Your task to perform on an android device: Open Chrome and go to the settings page Image 0: 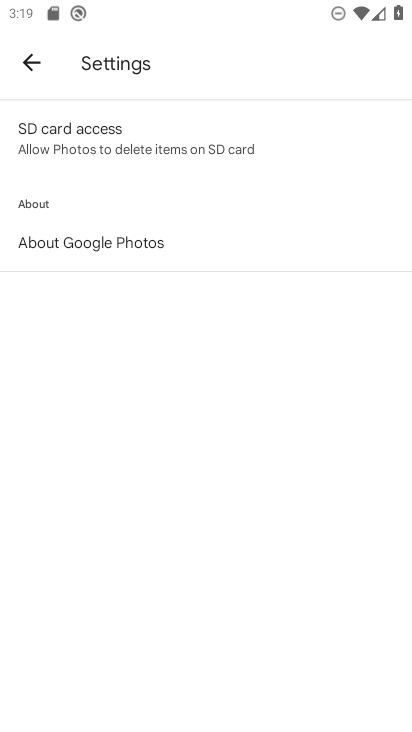
Step 0: click (303, 424)
Your task to perform on an android device: Open Chrome and go to the settings page Image 1: 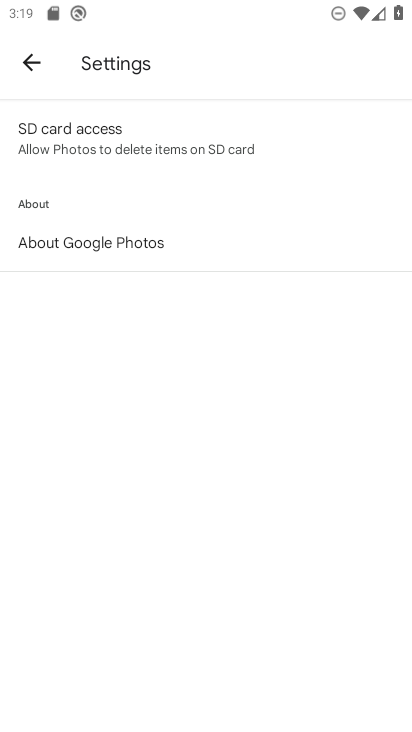
Step 1: click (224, 511)
Your task to perform on an android device: Open Chrome and go to the settings page Image 2: 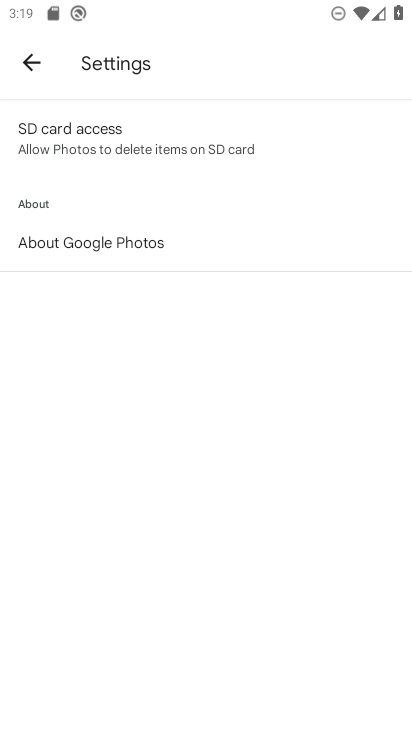
Step 2: click (228, 538)
Your task to perform on an android device: Open Chrome and go to the settings page Image 3: 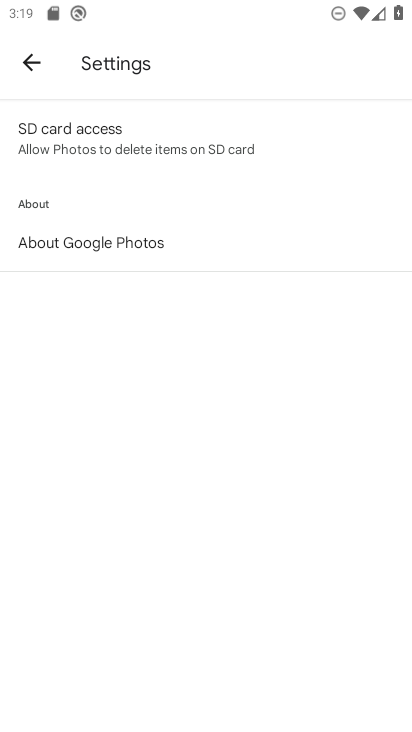
Step 3: click (255, 434)
Your task to perform on an android device: Open Chrome and go to the settings page Image 4: 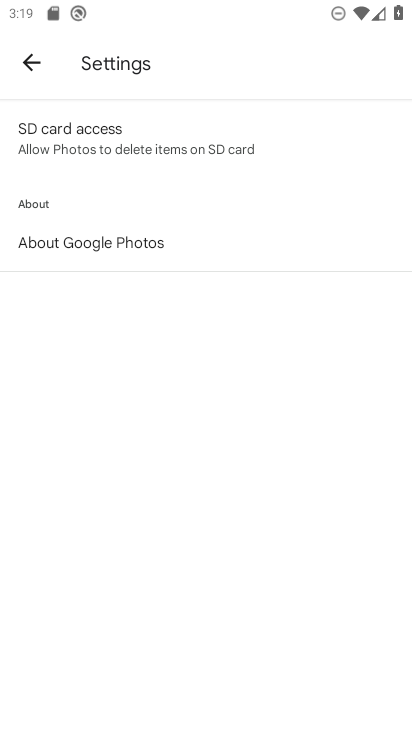
Step 4: click (314, 452)
Your task to perform on an android device: Open Chrome and go to the settings page Image 5: 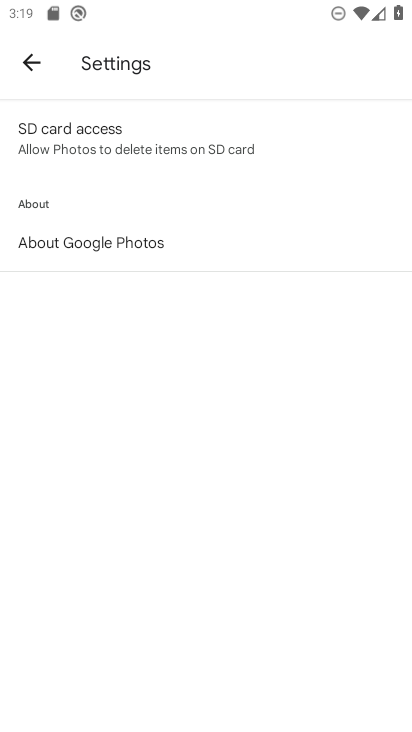
Step 5: click (197, 445)
Your task to perform on an android device: Open Chrome and go to the settings page Image 6: 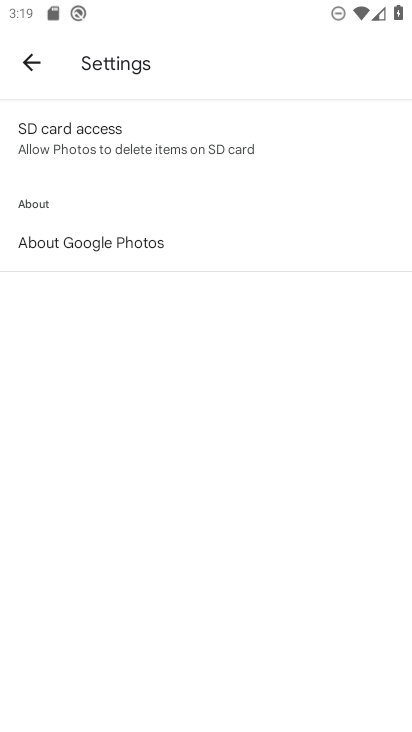
Step 6: click (163, 448)
Your task to perform on an android device: Open Chrome and go to the settings page Image 7: 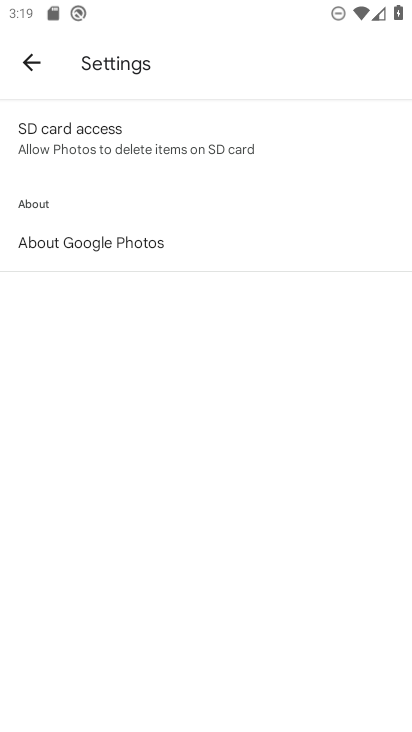
Step 7: click (243, 466)
Your task to perform on an android device: Open Chrome and go to the settings page Image 8: 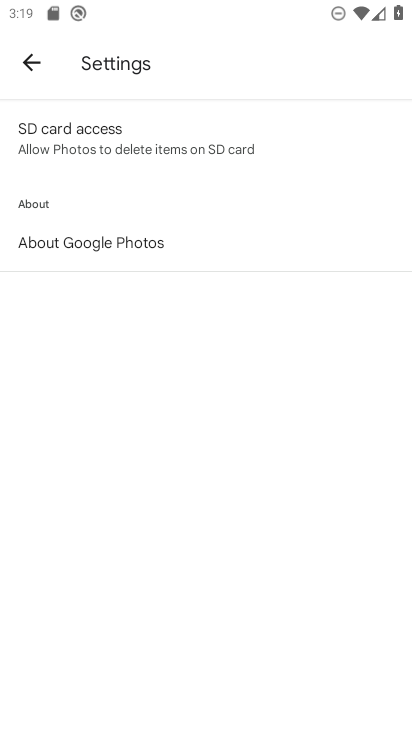
Step 8: click (52, 551)
Your task to perform on an android device: Open Chrome and go to the settings page Image 9: 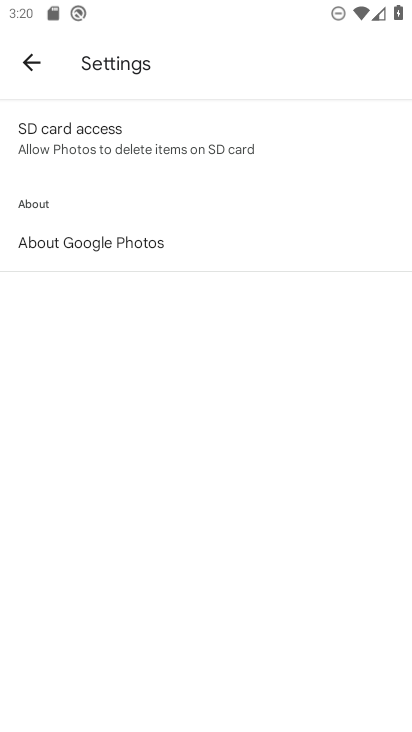
Step 9: click (23, 60)
Your task to perform on an android device: Open Chrome and go to the settings page Image 10: 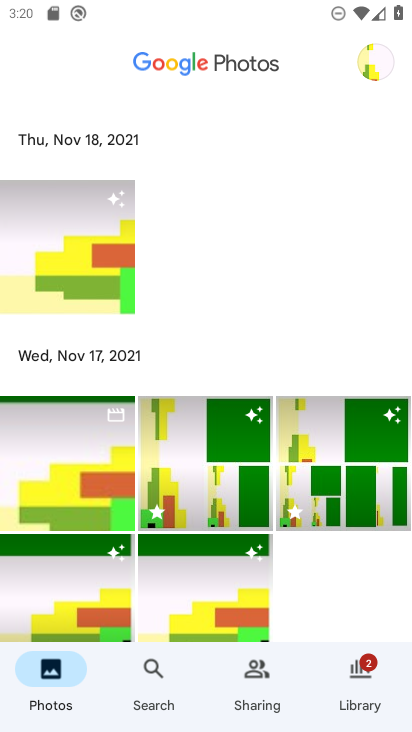
Step 10: press home button
Your task to perform on an android device: Open Chrome and go to the settings page Image 11: 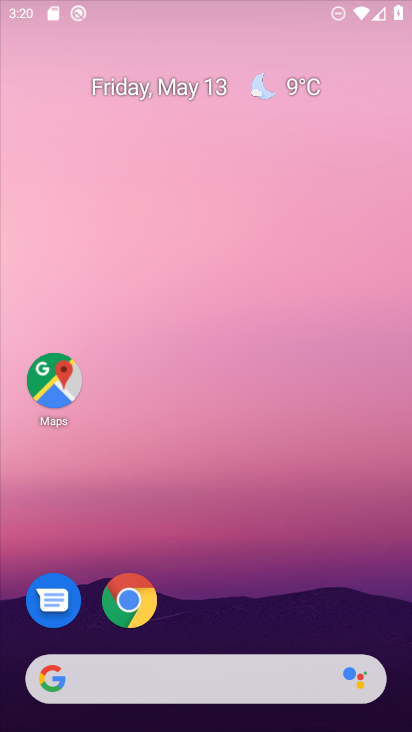
Step 11: drag from (184, 611) to (248, 7)
Your task to perform on an android device: Open Chrome and go to the settings page Image 12: 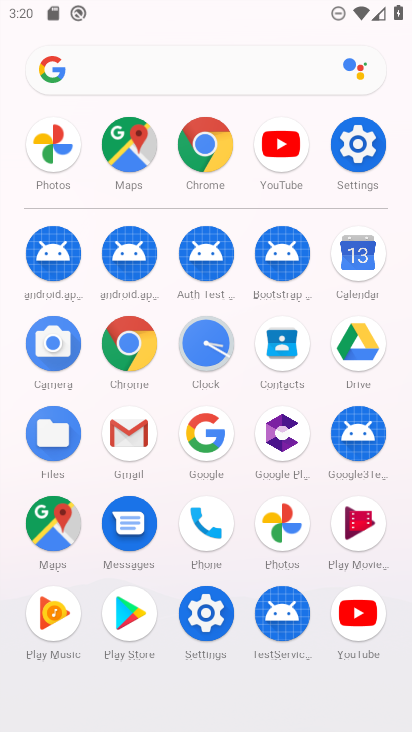
Step 12: click (208, 147)
Your task to perform on an android device: Open Chrome and go to the settings page Image 13: 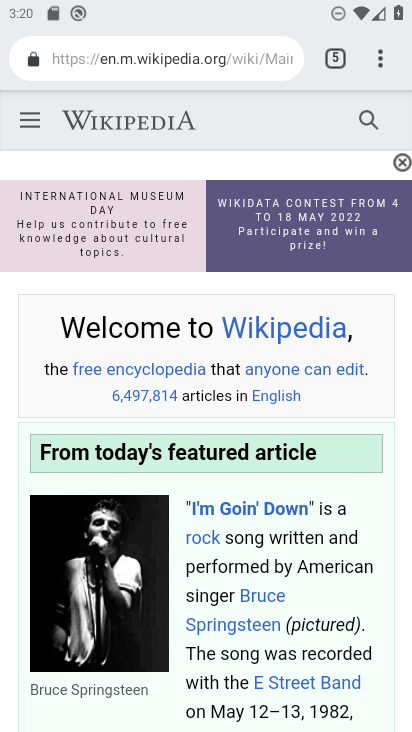
Step 13: task complete